Your task to perform on an android device: make emails show in primary in the gmail app Image 0: 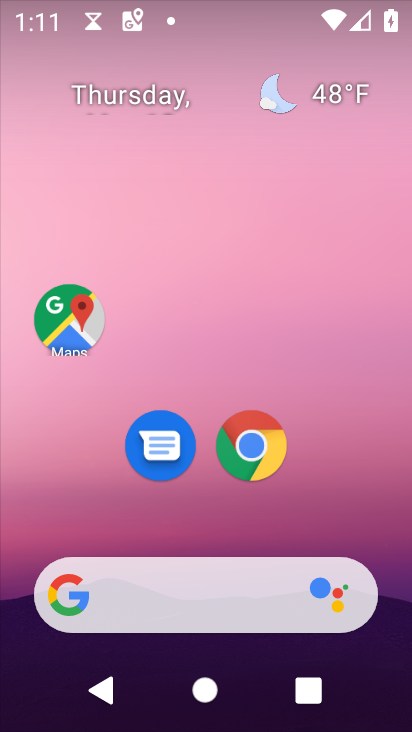
Step 0: drag from (307, 352) to (209, 107)
Your task to perform on an android device: make emails show in primary in the gmail app Image 1: 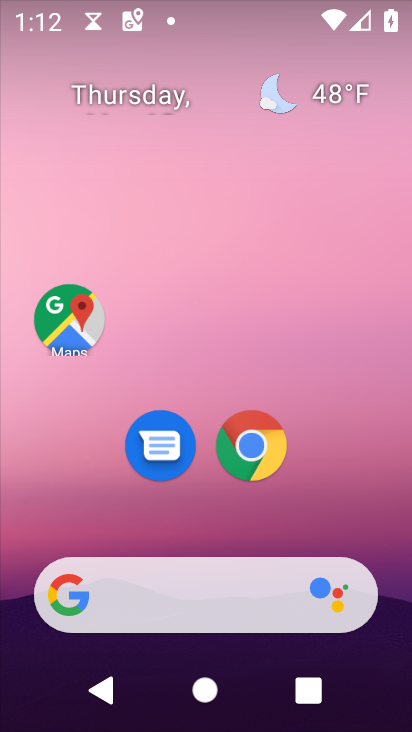
Step 1: drag from (327, 484) to (186, 159)
Your task to perform on an android device: make emails show in primary in the gmail app Image 2: 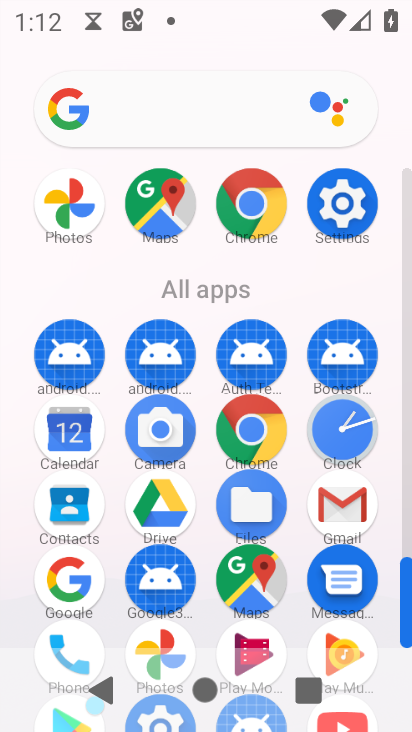
Step 2: click (327, 520)
Your task to perform on an android device: make emails show in primary in the gmail app Image 3: 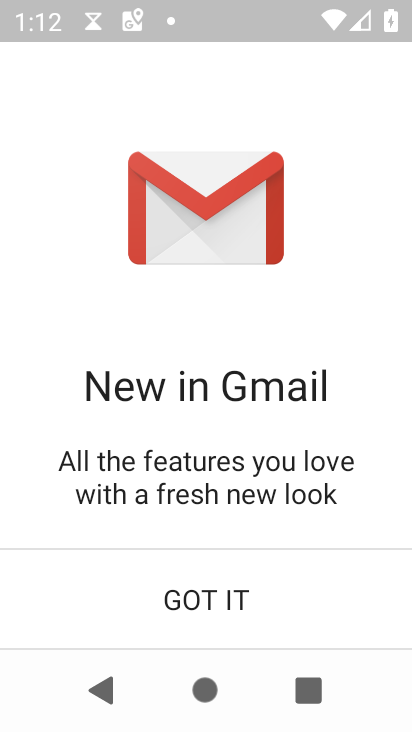
Step 3: click (187, 613)
Your task to perform on an android device: make emails show in primary in the gmail app Image 4: 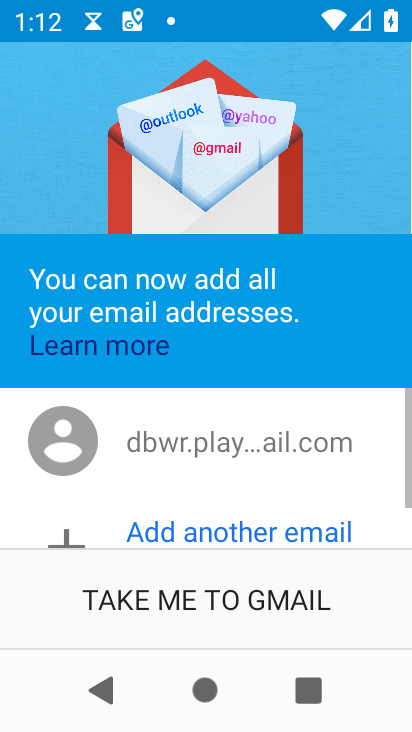
Step 4: click (187, 613)
Your task to perform on an android device: make emails show in primary in the gmail app Image 5: 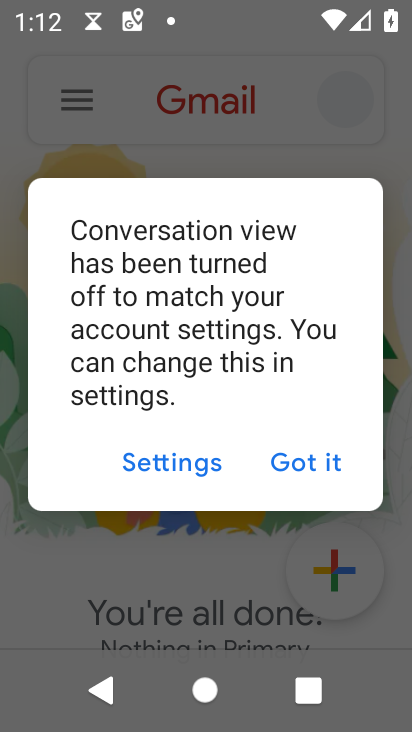
Step 5: click (311, 456)
Your task to perform on an android device: make emails show in primary in the gmail app Image 6: 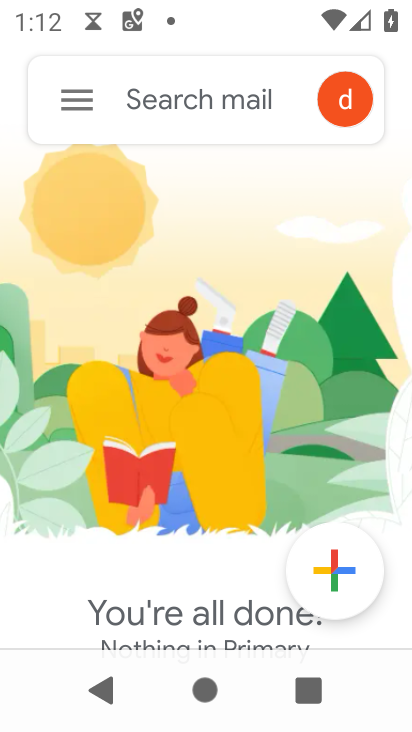
Step 6: click (79, 94)
Your task to perform on an android device: make emails show in primary in the gmail app Image 7: 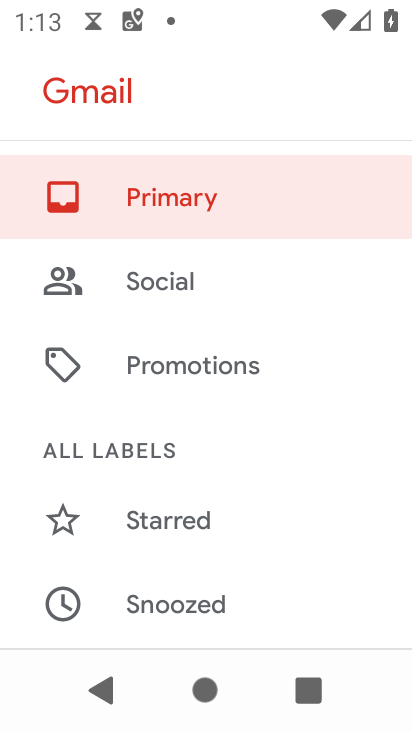
Step 7: drag from (252, 570) to (261, 216)
Your task to perform on an android device: make emails show in primary in the gmail app Image 8: 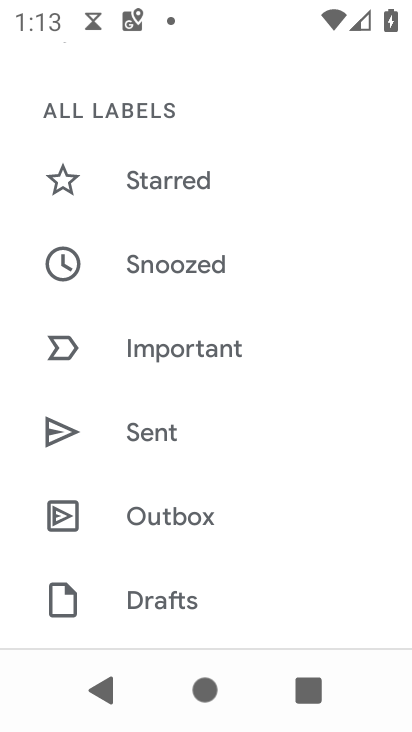
Step 8: drag from (264, 582) to (272, 227)
Your task to perform on an android device: make emails show in primary in the gmail app Image 9: 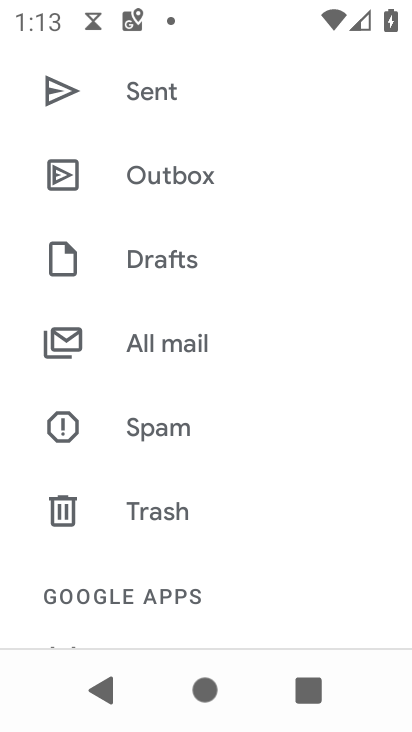
Step 9: drag from (232, 527) to (236, 162)
Your task to perform on an android device: make emails show in primary in the gmail app Image 10: 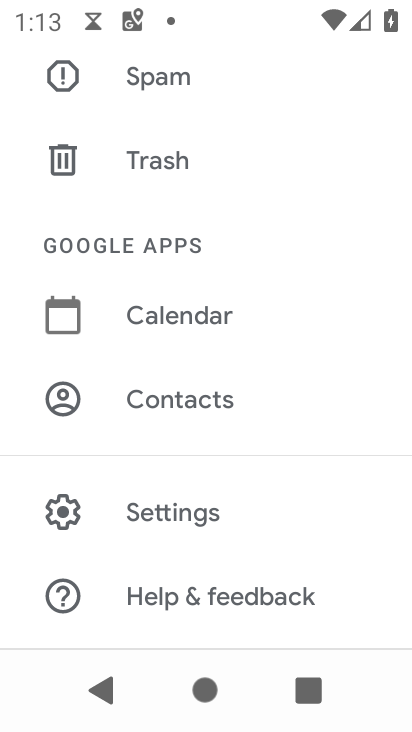
Step 10: click (199, 511)
Your task to perform on an android device: make emails show in primary in the gmail app Image 11: 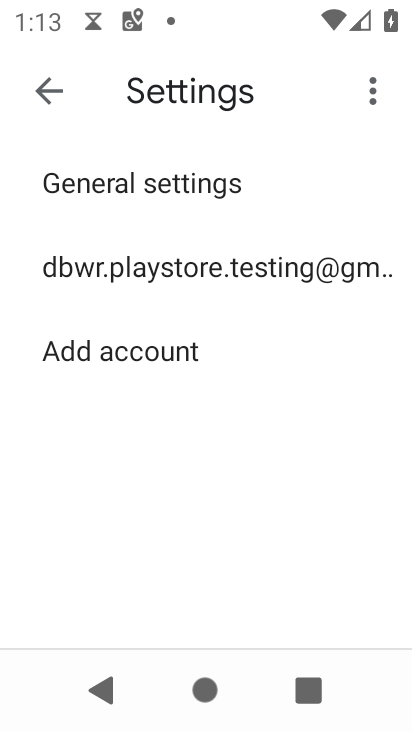
Step 11: click (206, 265)
Your task to perform on an android device: make emails show in primary in the gmail app Image 12: 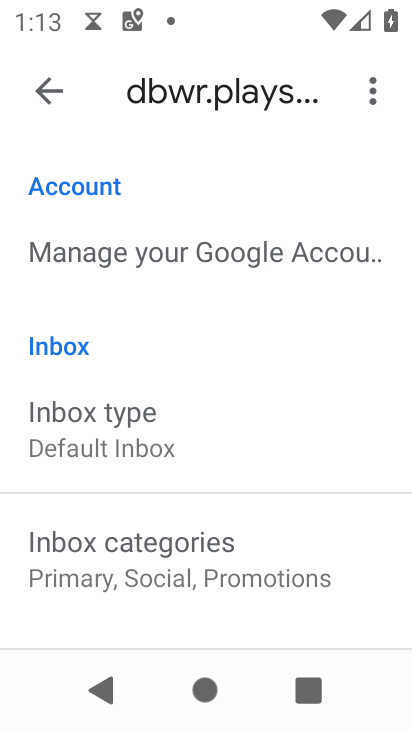
Step 12: click (219, 562)
Your task to perform on an android device: make emails show in primary in the gmail app Image 13: 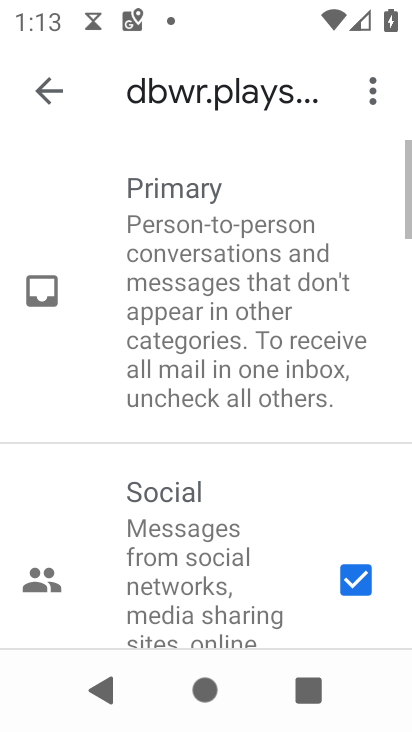
Step 13: click (358, 576)
Your task to perform on an android device: make emails show in primary in the gmail app Image 14: 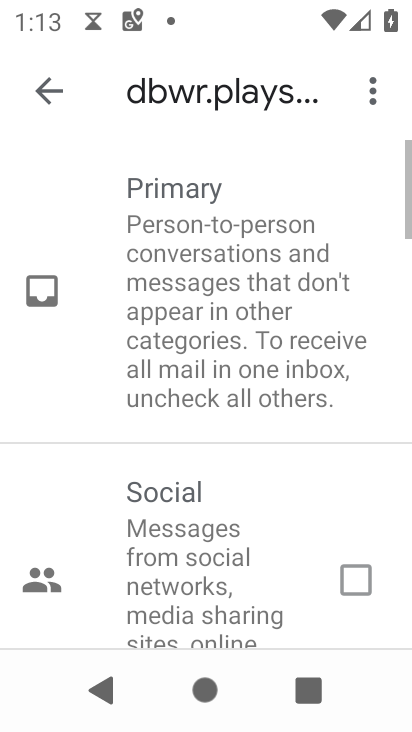
Step 14: drag from (279, 577) to (296, 236)
Your task to perform on an android device: make emails show in primary in the gmail app Image 15: 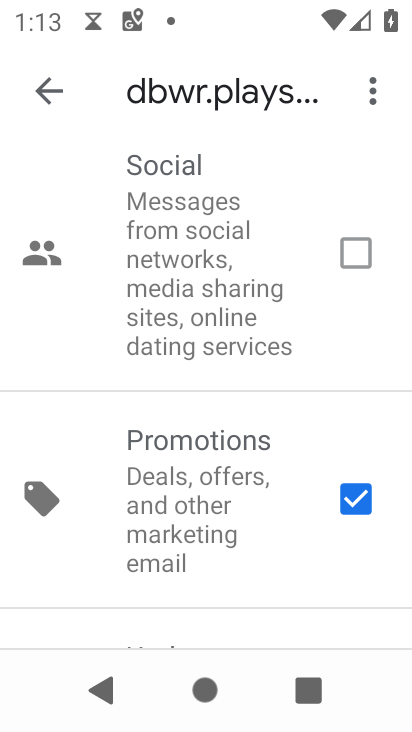
Step 15: click (351, 505)
Your task to perform on an android device: make emails show in primary in the gmail app Image 16: 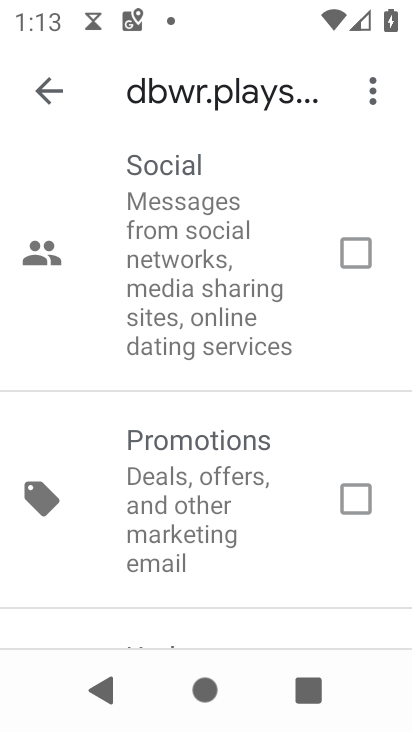
Step 16: task complete